Your task to perform on an android device: Go to network settings Image 0: 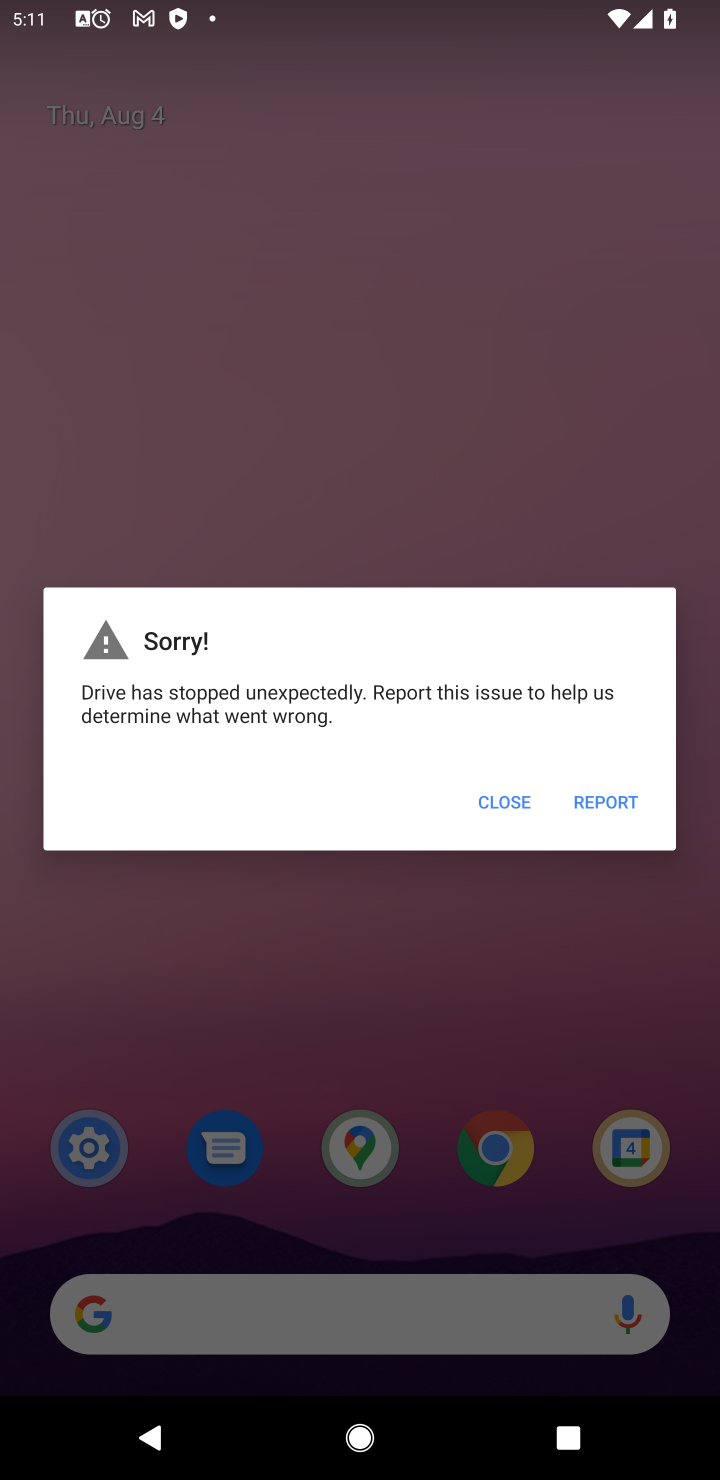
Step 0: press home button
Your task to perform on an android device: Go to network settings Image 1: 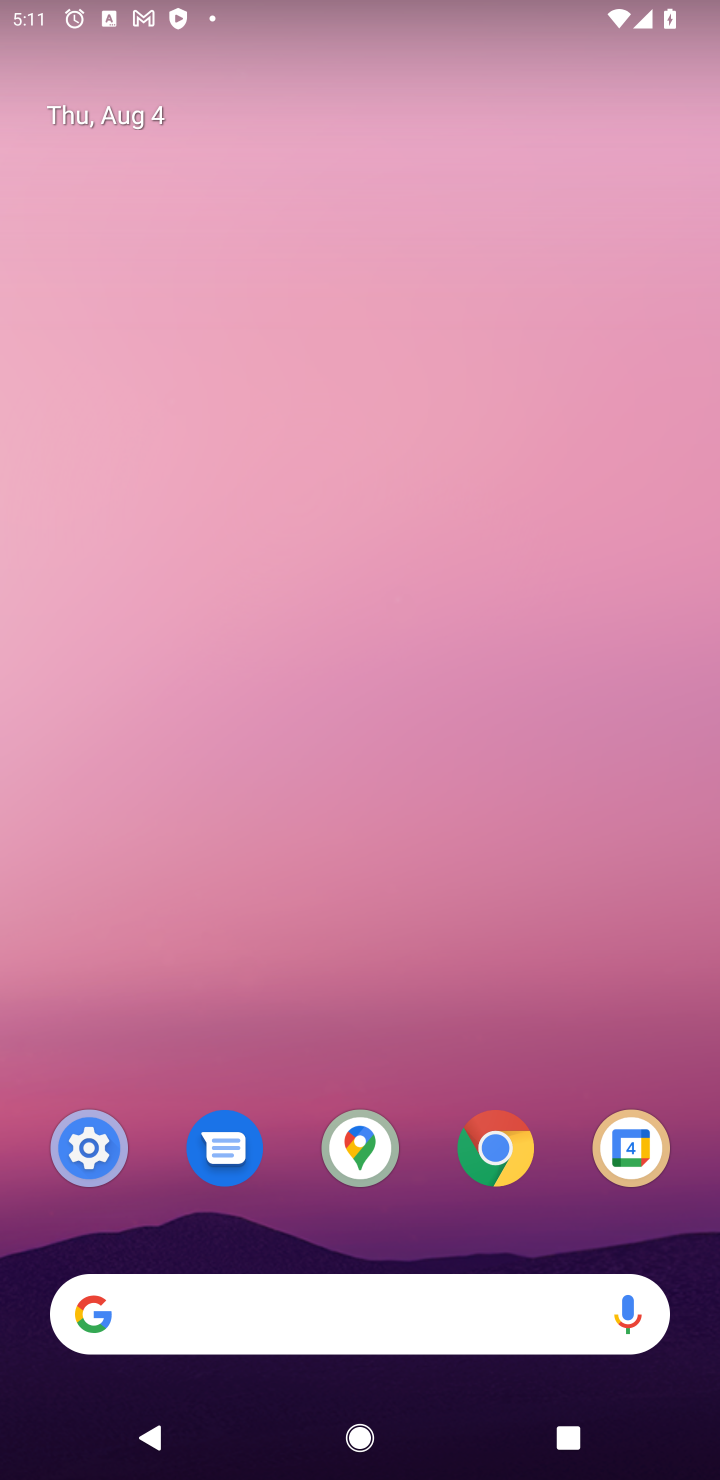
Step 1: click (91, 1149)
Your task to perform on an android device: Go to network settings Image 2: 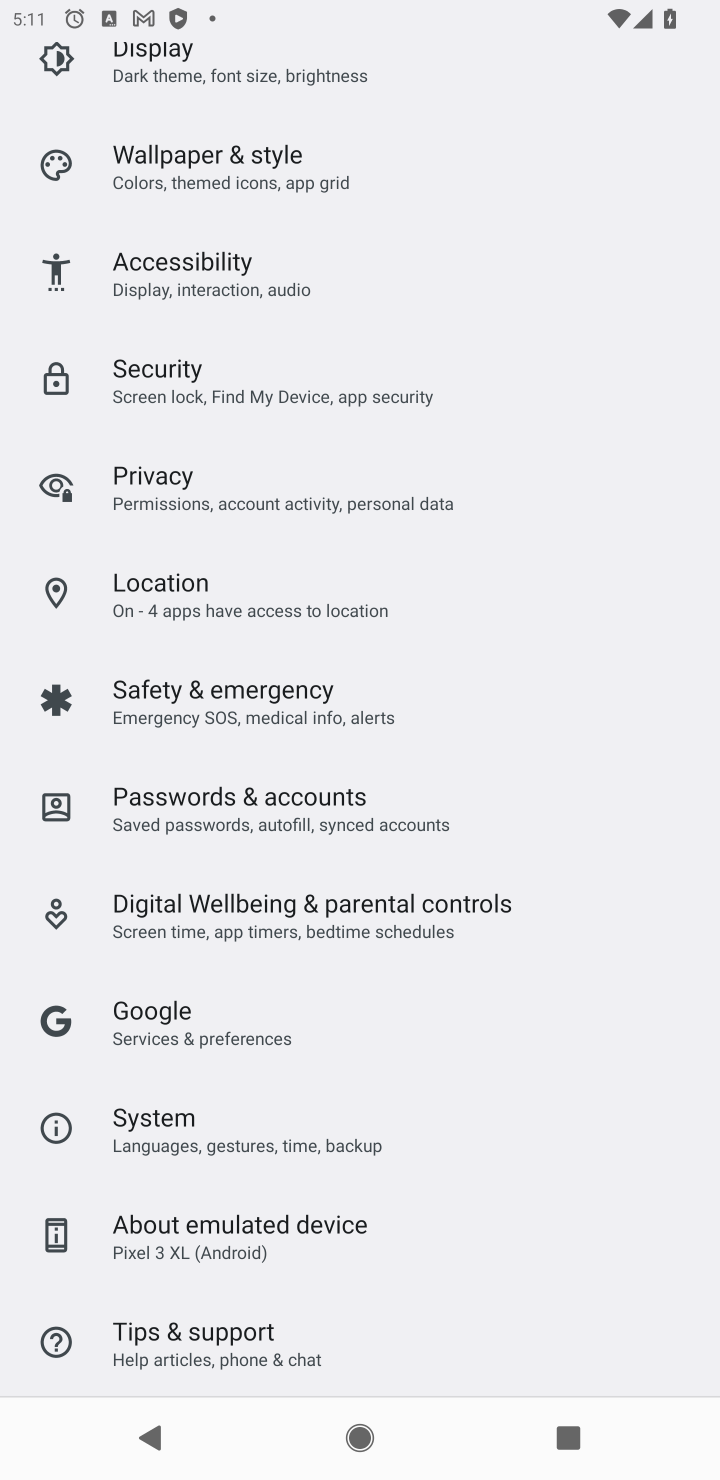
Step 2: drag from (558, 297) to (515, 785)
Your task to perform on an android device: Go to network settings Image 3: 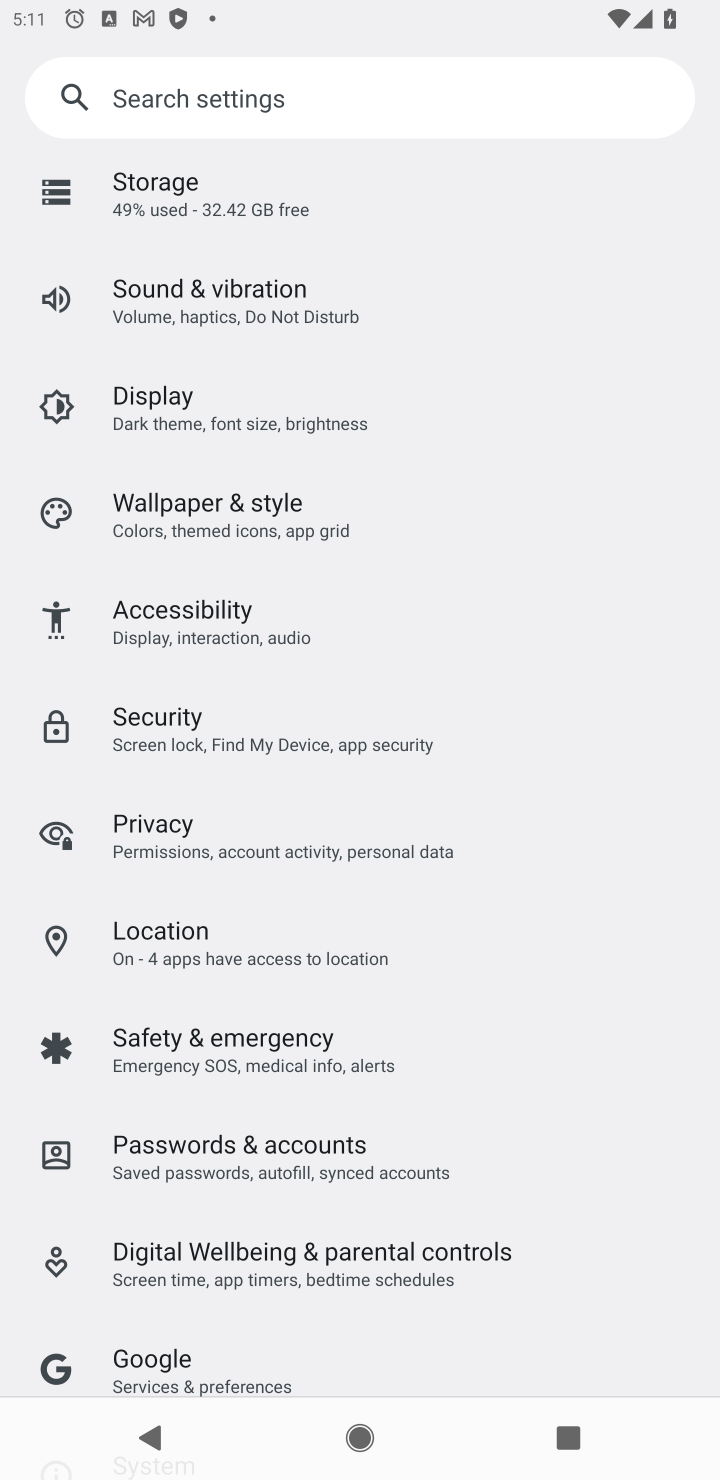
Step 3: drag from (451, 237) to (525, 1134)
Your task to perform on an android device: Go to network settings Image 4: 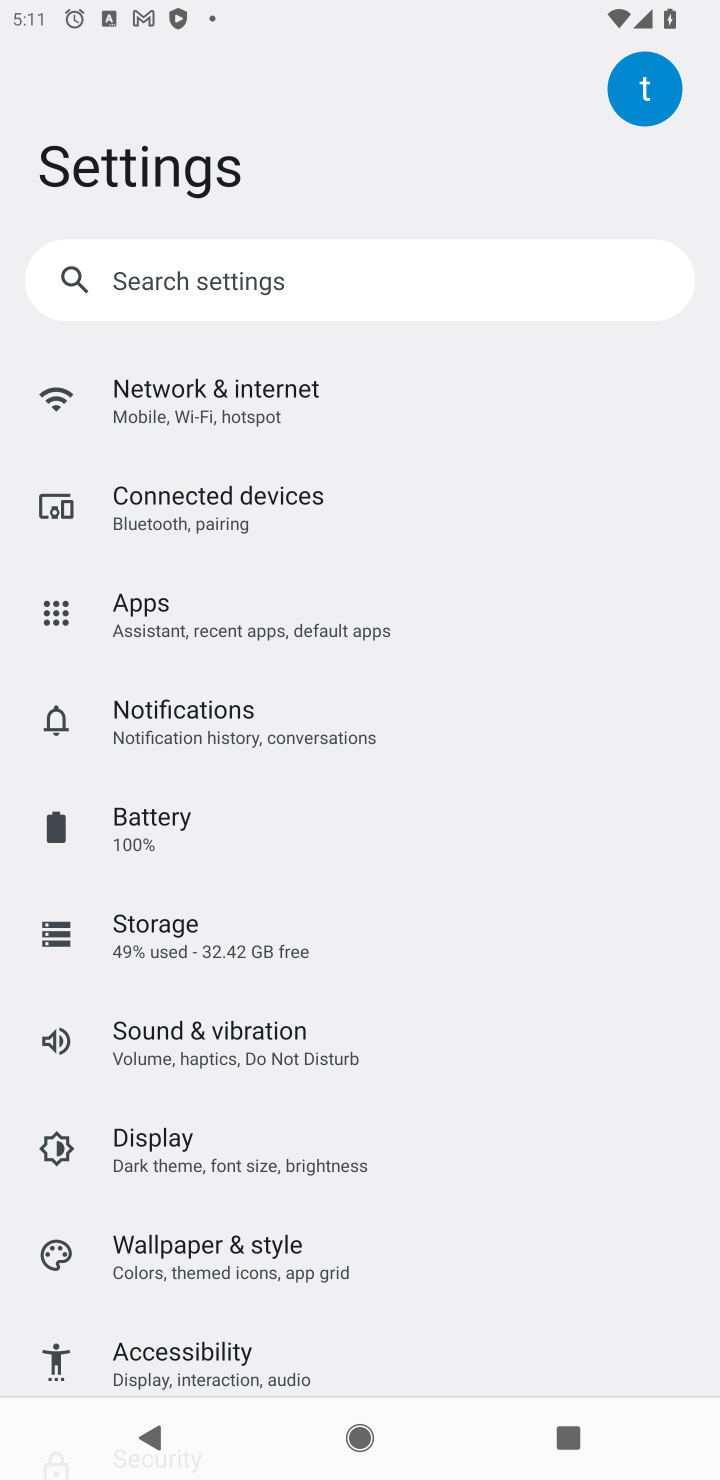
Step 4: click (140, 382)
Your task to perform on an android device: Go to network settings Image 5: 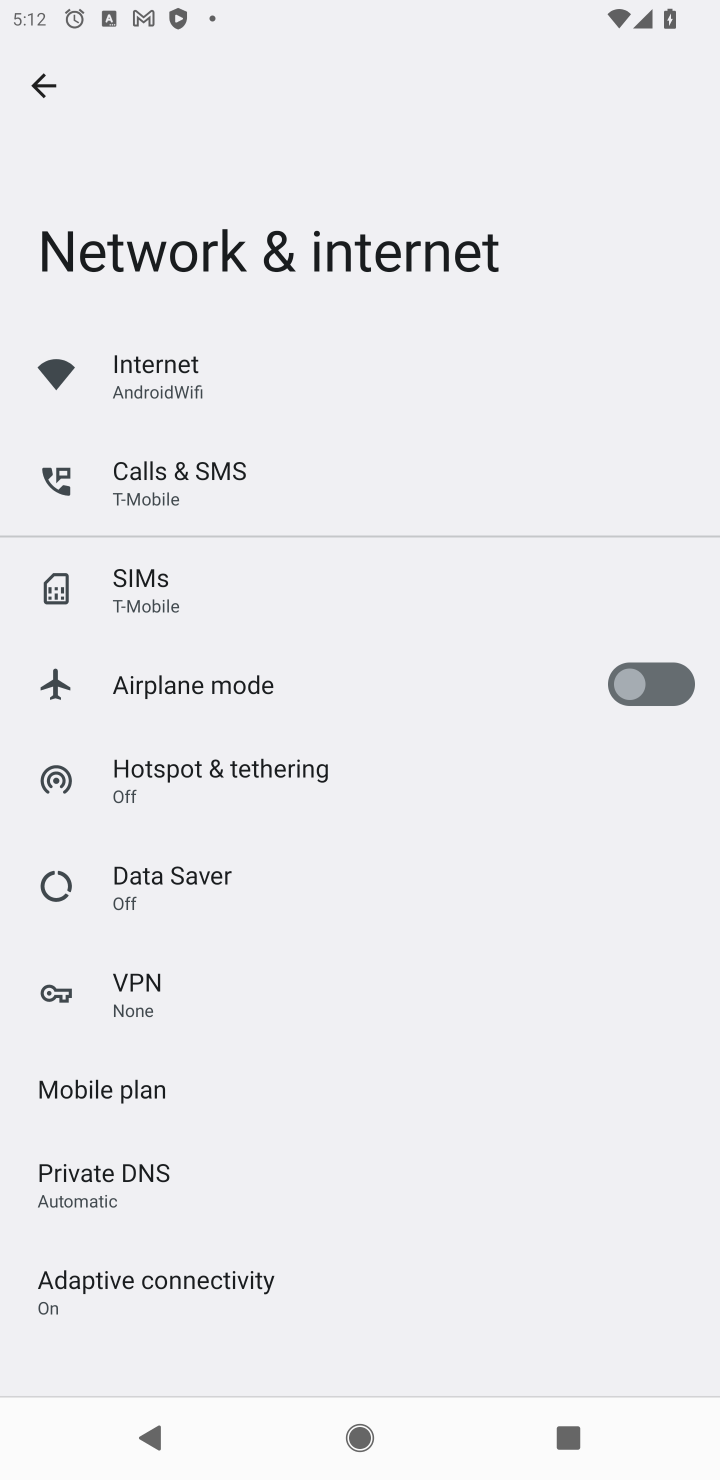
Step 5: click (150, 379)
Your task to perform on an android device: Go to network settings Image 6: 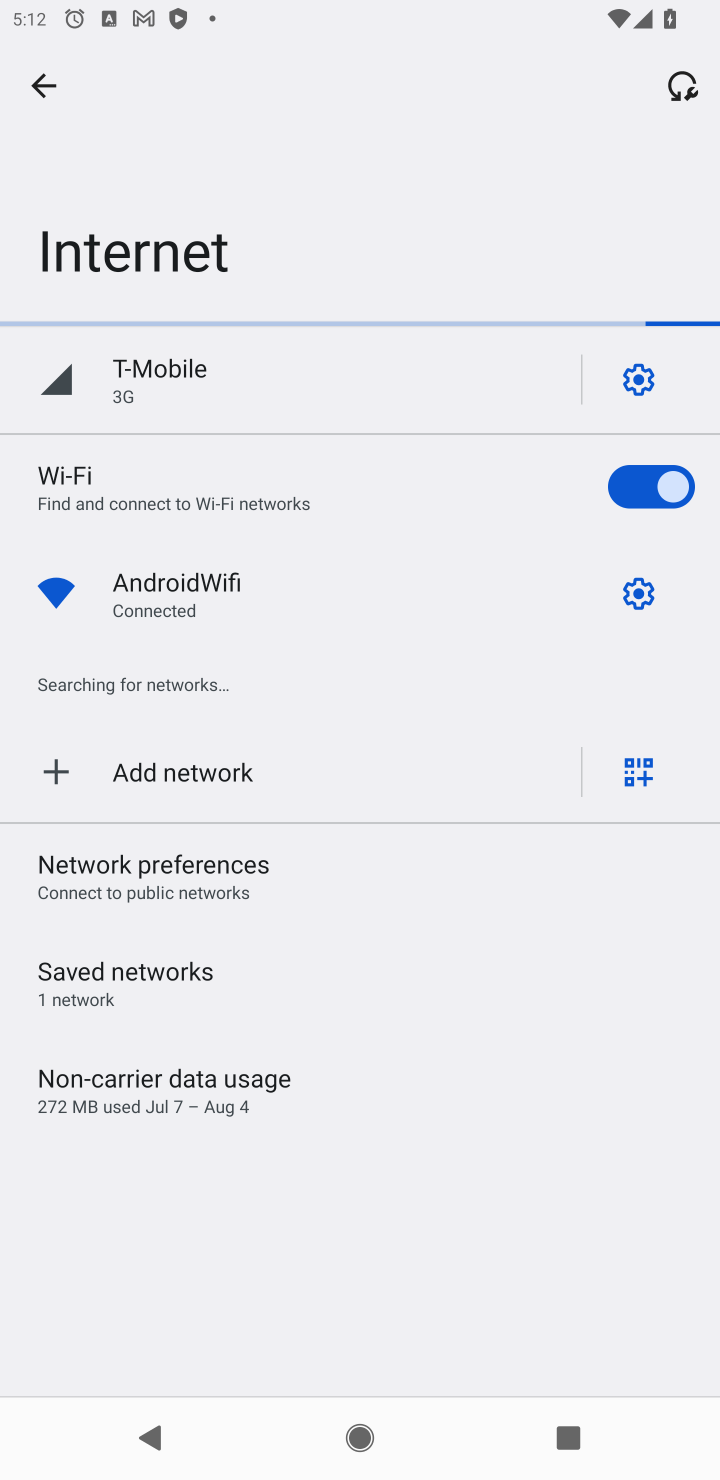
Step 6: click (131, 883)
Your task to perform on an android device: Go to network settings Image 7: 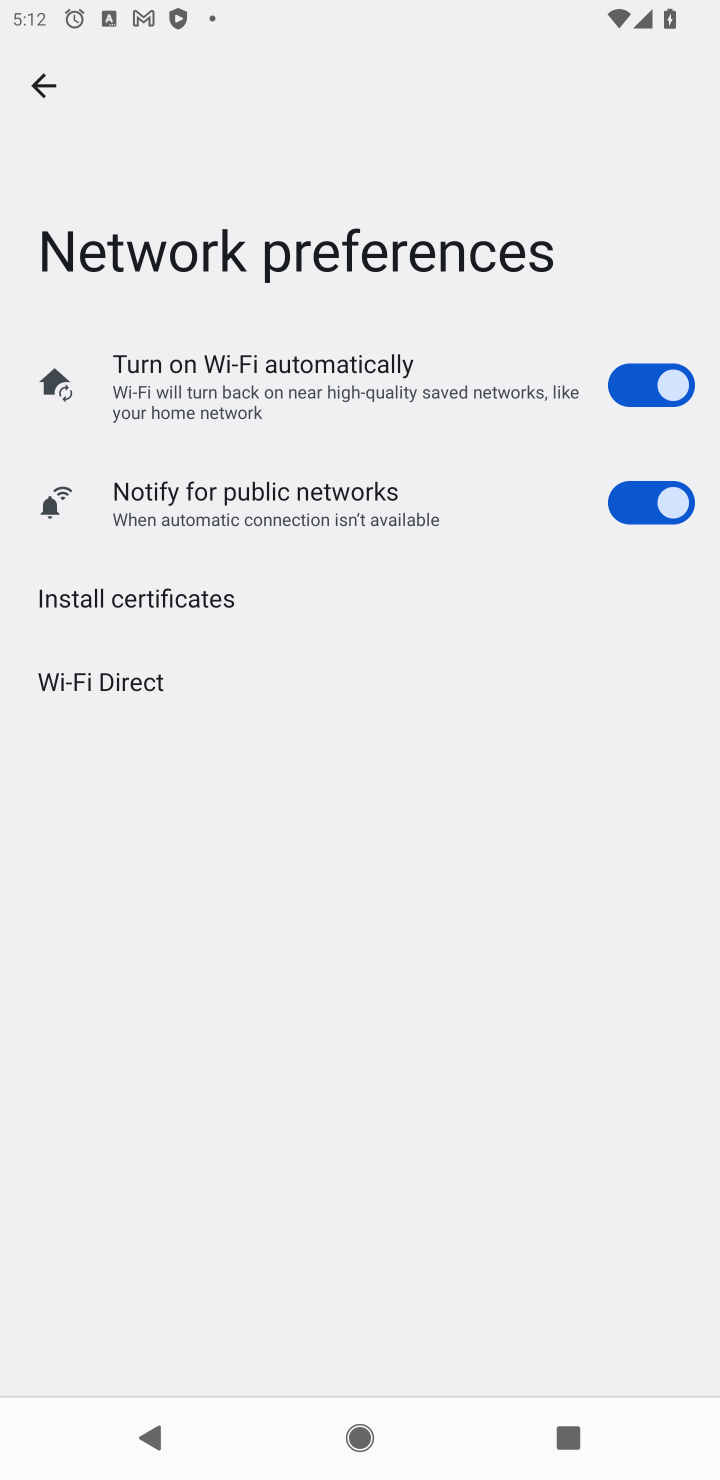
Step 7: task complete